Your task to perform on an android device: Open the stopwatch Image 0: 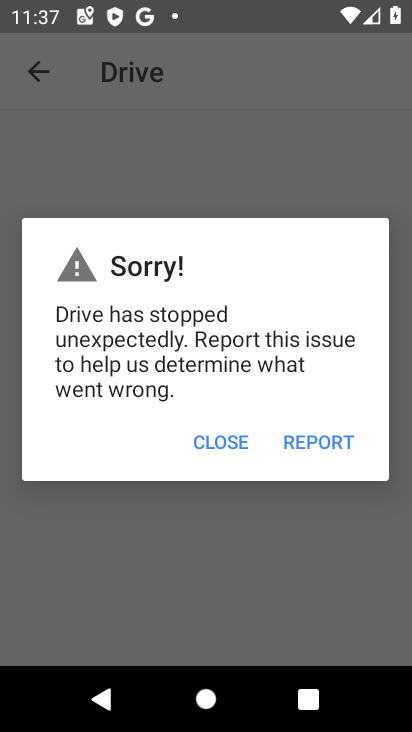
Step 0: press home button
Your task to perform on an android device: Open the stopwatch Image 1: 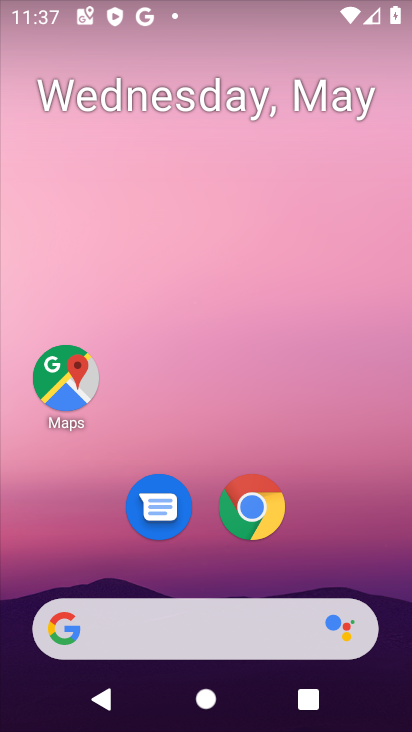
Step 1: drag from (403, 663) to (383, 110)
Your task to perform on an android device: Open the stopwatch Image 2: 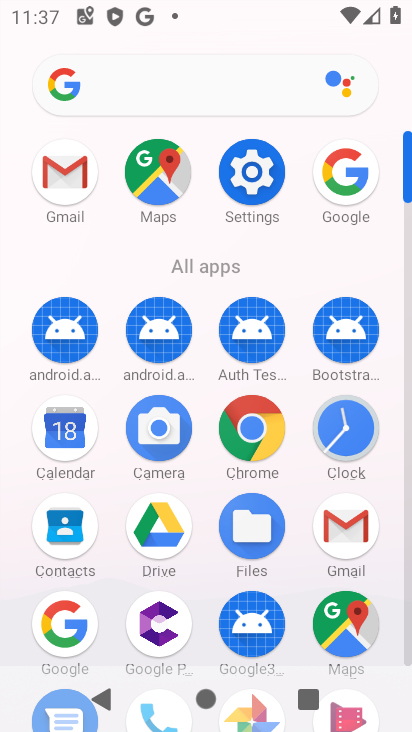
Step 2: click (409, 599)
Your task to perform on an android device: Open the stopwatch Image 3: 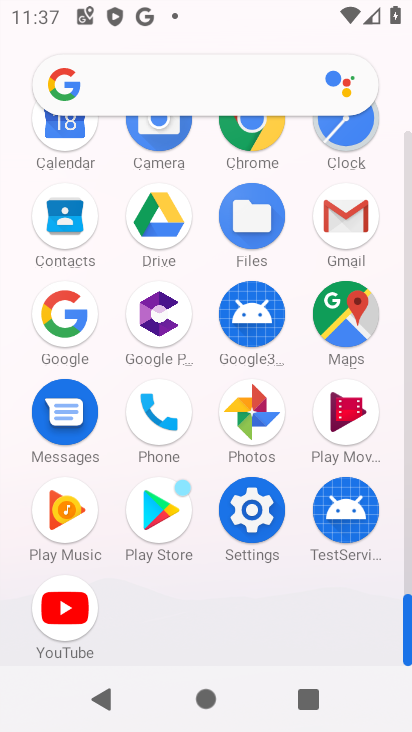
Step 3: click (257, 478)
Your task to perform on an android device: Open the stopwatch Image 4: 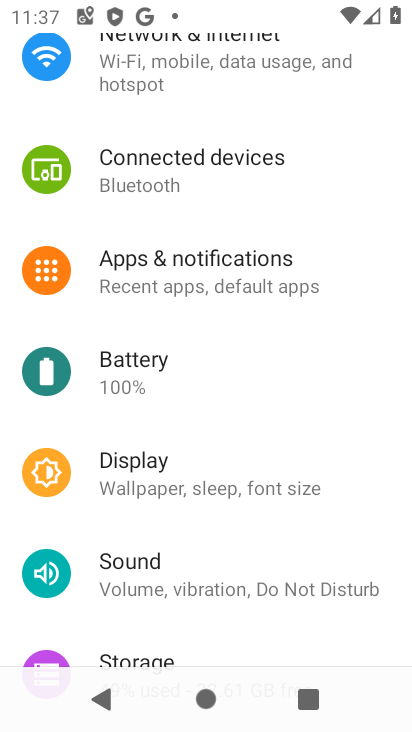
Step 4: press home button
Your task to perform on an android device: Open the stopwatch Image 5: 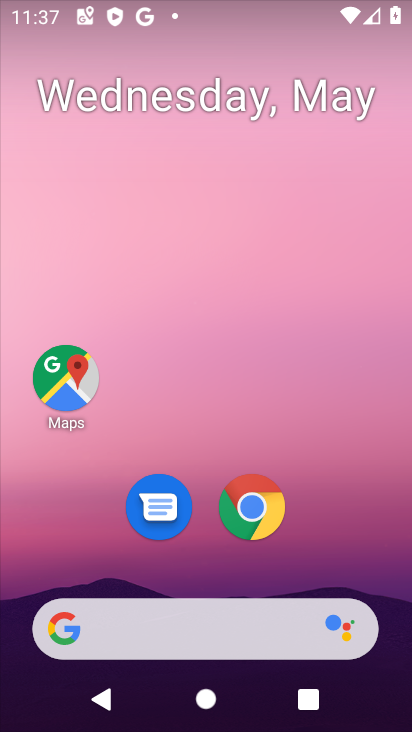
Step 5: drag from (369, 709) to (402, 430)
Your task to perform on an android device: Open the stopwatch Image 6: 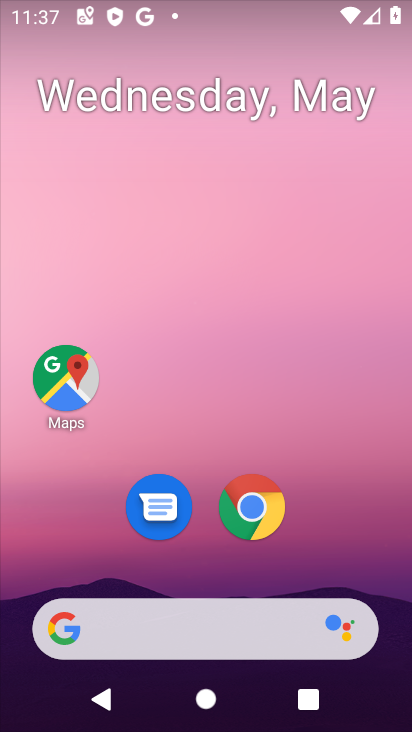
Step 6: drag from (387, 682) to (374, 107)
Your task to perform on an android device: Open the stopwatch Image 7: 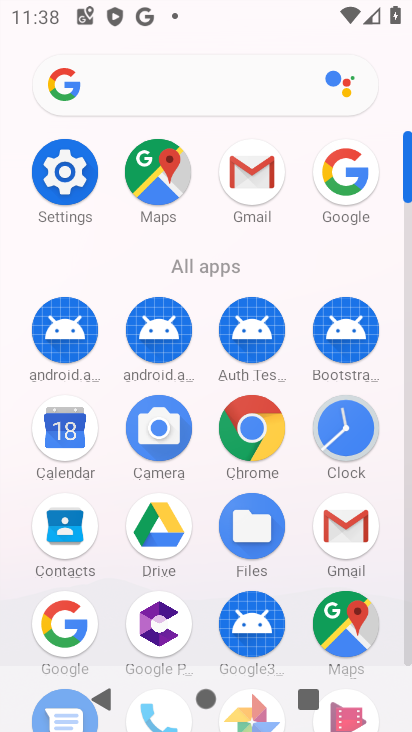
Step 7: click (347, 440)
Your task to perform on an android device: Open the stopwatch Image 8: 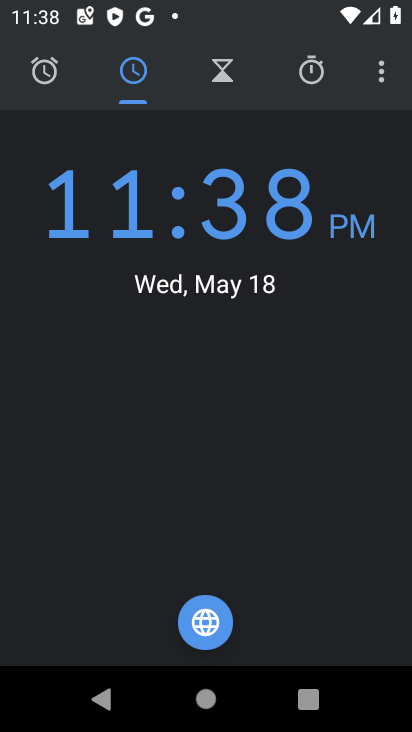
Step 8: click (377, 83)
Your task to perform on an android device: Open the stopwatch Image 9: 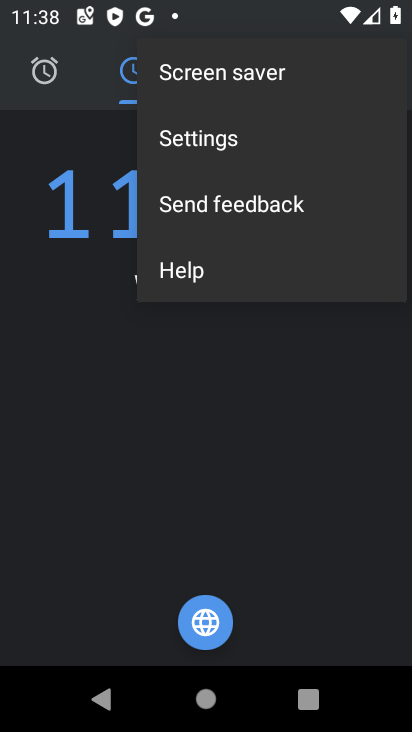
Step 9: click (40, 334)
Your task to perform on an android device: Open the stopwatch Image 10: 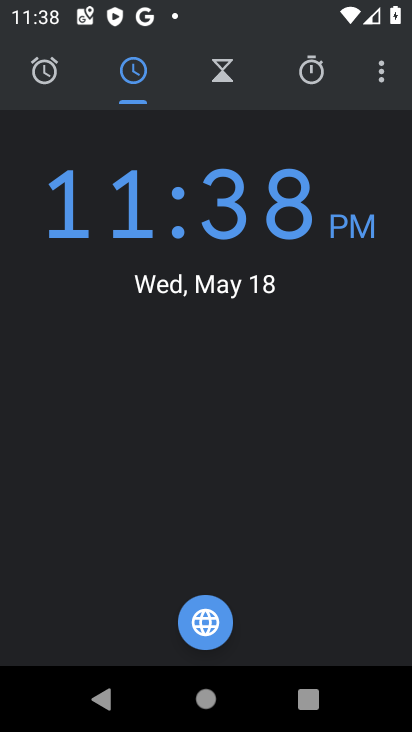
Step 10: click (223, 50)
Your task to perform on an android device: Open the stopwatch Image 11: 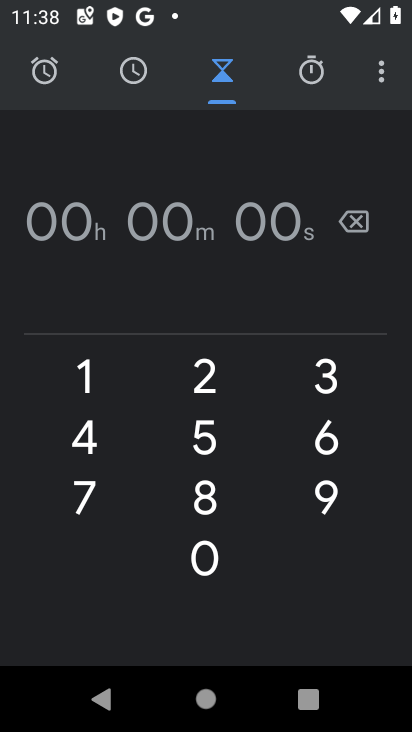
Step 11: drag from (302, 93) to (52, 661)
Your task to perform on an android device: Open the stopwatch Image 12: 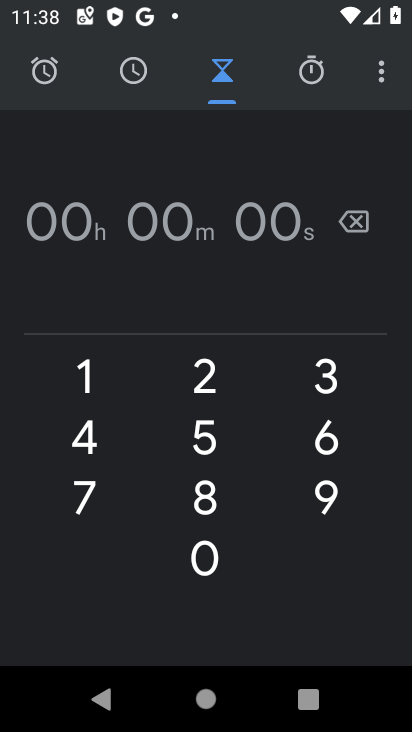
Step 12: click (299, 60)
Your task to perform on an android device: Open the stopwatch Image 13: 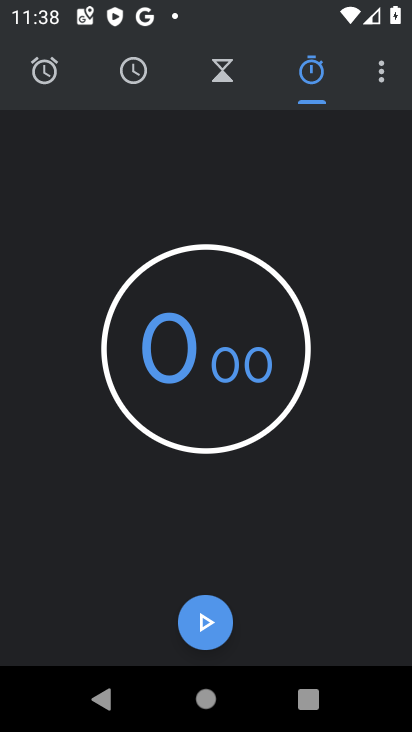
Step 13: task complete